Your task to perform on an android device: turn on sleep mode Image 0: 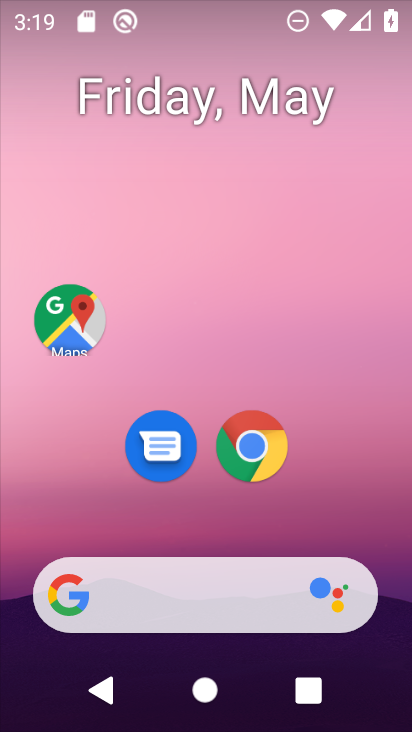
Step 0: drag from (328, 495) to (362, 97)
Your task to perform on an android device: turn on sleep mode Image 1: 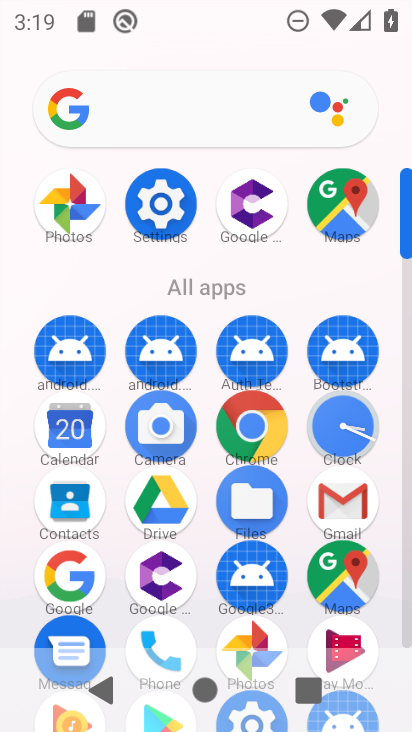
Step 1: click (174, 219)
Your task to perform on an android device: turn on sleep mode Image 2: 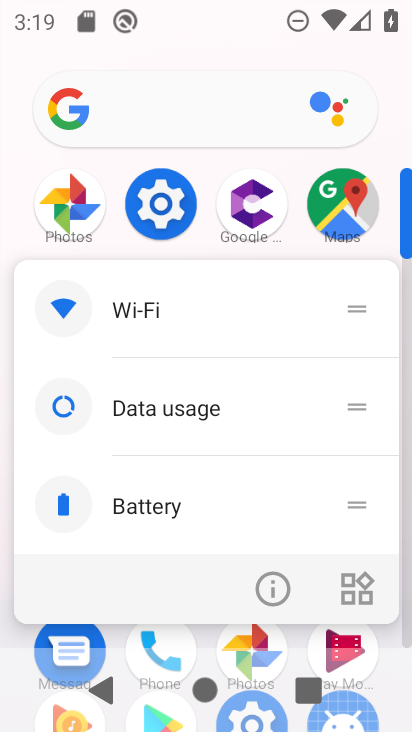
Step 2: click (167, 193)
Your task to perform on an android device: turn on sleep mode Image 3: 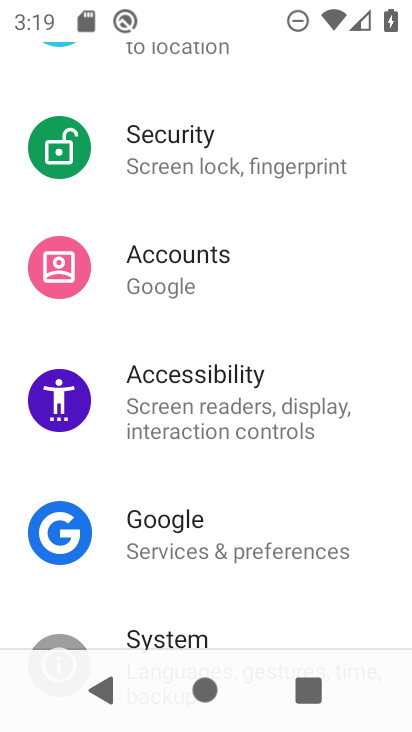
Step 3: task complete